Your task to perform on an android device: set default search engine in the chrome app Image 0: 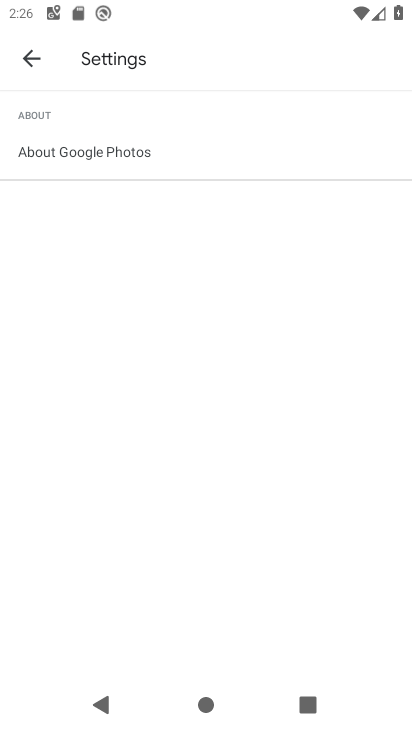
Step 0: press home button
Your task to perform on an android device: set default search engine in the chrome app Image 1: 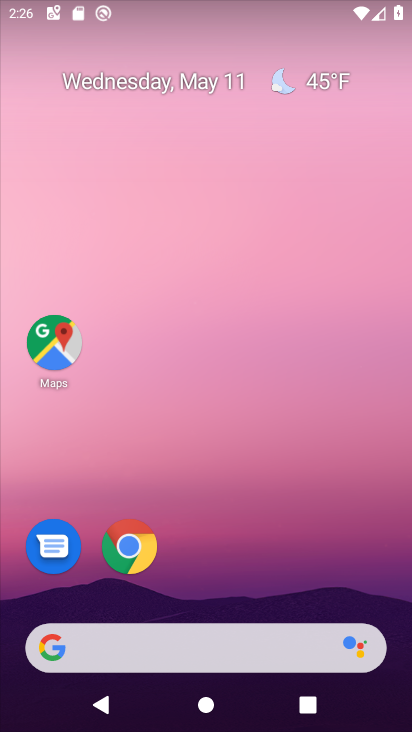
Step 1: click (142, 542)
Your task to perform on an android device: set default search engine in the chrome app Image 2: 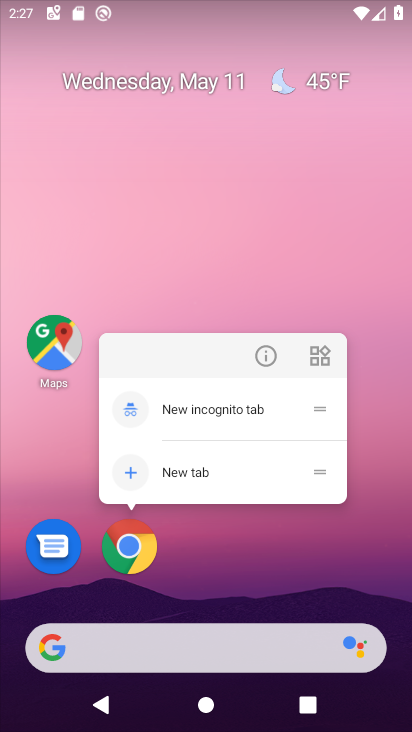
Step 2: click (142, 542)
Your task to perform on an android device: set default search engine in the chrome app Image 3: 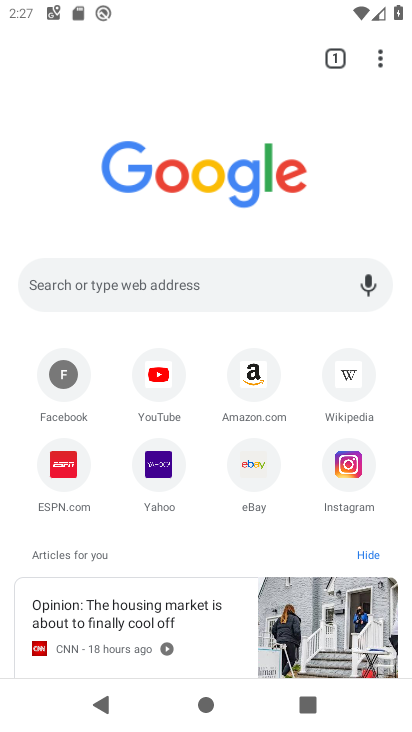
Step 3: click (379, 59)
Your task to perform on an android device: set default search engine in the chrome app Image 4: 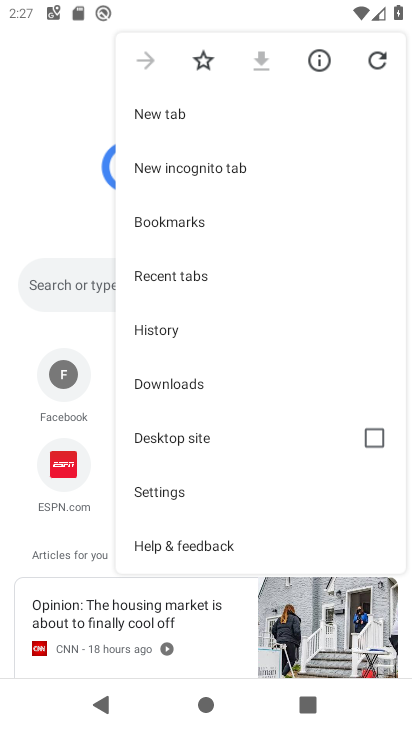
Step 4: click (147, 493)
Your task to perform on an android device: set default search engine in the chrome app Image 5: 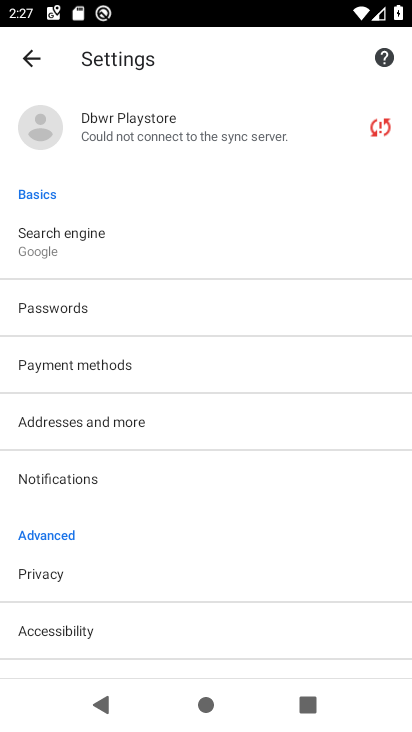
Step 5: click (94, 249)
Your task to perform on an android device: set default search engine in the chrome app Image 6: 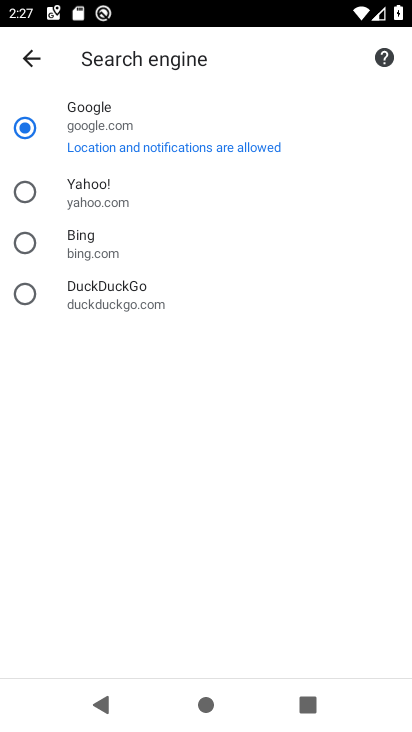
Step 6: task complete